Your task to perform on an android device: turn on the 24-hour format for clock Image 0: 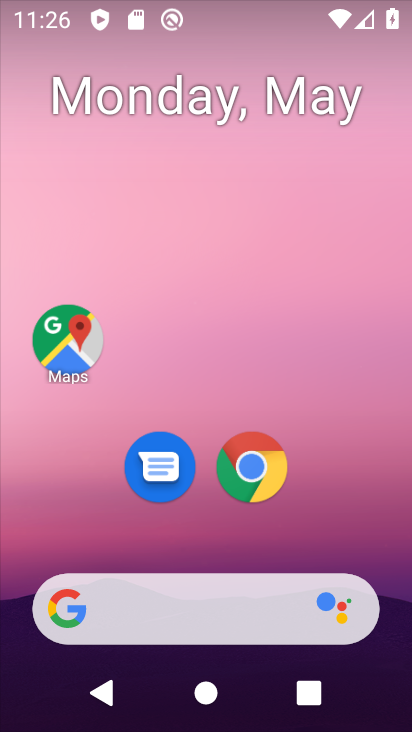
Step 0: drag from (378, 482) to (247, 20)
Your task to perform on an android device: turn on the 24-hour format for clock Image 1: 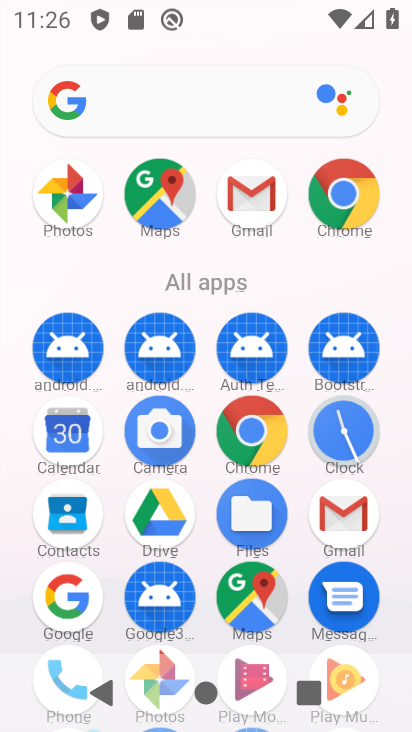
Step 1: click (345, 456)
Your task to perform on an android device: turn on the 24-hour format for clock Image 2: 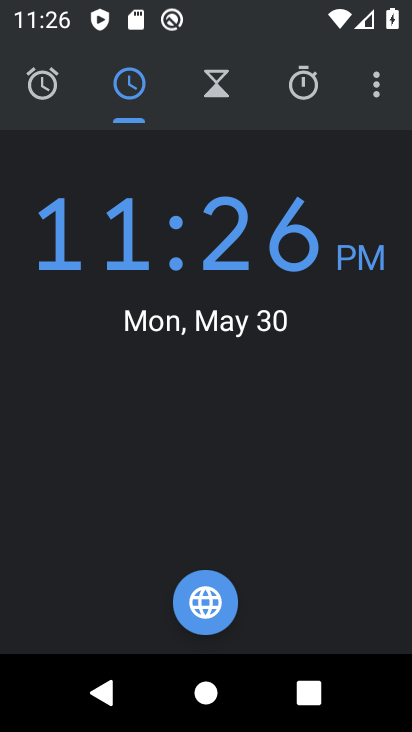
Step 2: click (372, 111)
Your task to perform on an android device: turn on the 24-hour format for clock Image 3: 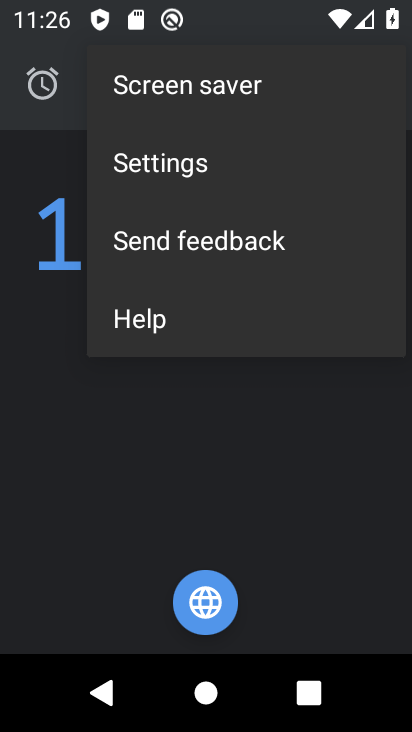
Step 3: click (302, 178)
Your task to perform on an android device: turn on the 24-hour format for clock Image 4: 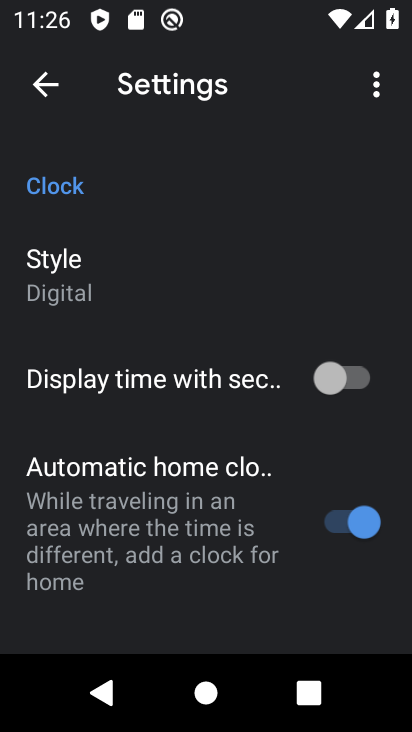
Step 4: drag from (222, 509) to (155, 122)
Your task to perform on an android device: turn on the 24-hour format for clock Image 5: 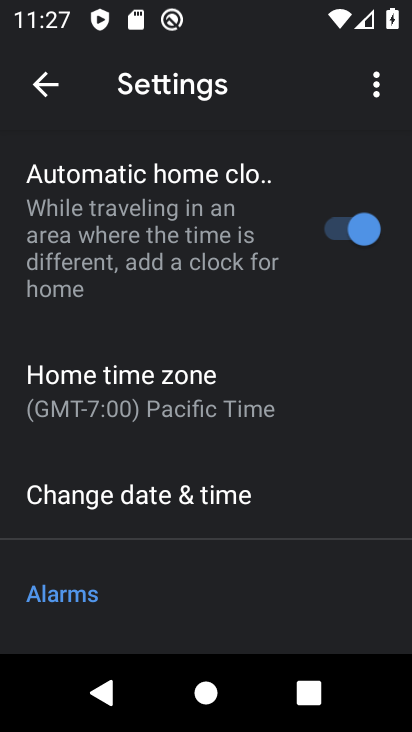
Step 5: click (195, 522)
Your task to perform on an android device: turn on the 24-hour format for clock Image 6: 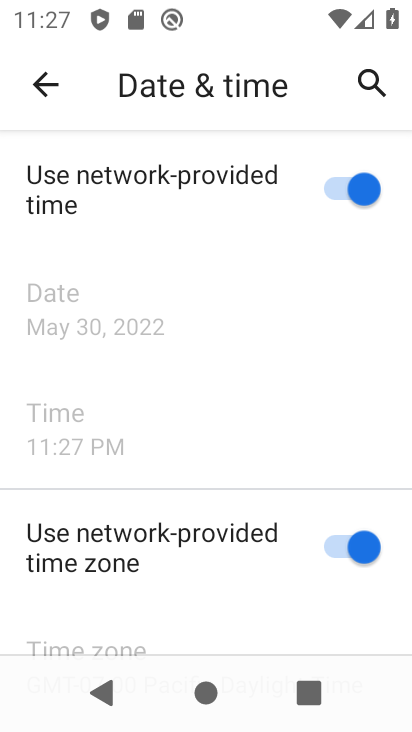
Step 6: drag from (234, 543) to (180, 3)
Your task to perform on an android device: turn on the 24-hour format for clock Image 7: 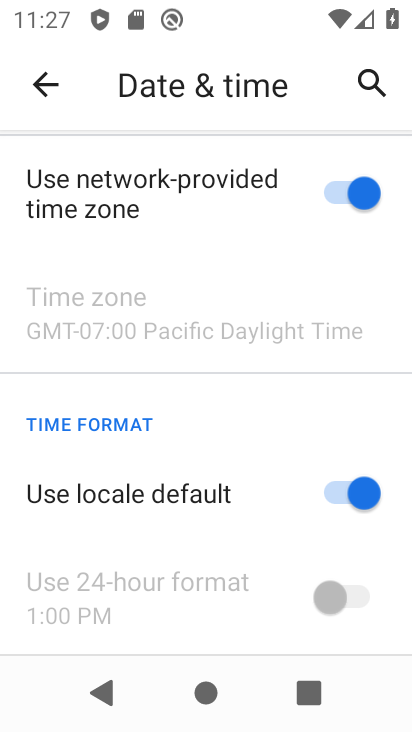
Step 7: click (340, 500)
Your task to perform on an android device: turn on the 24-hour format for clock Image 8: 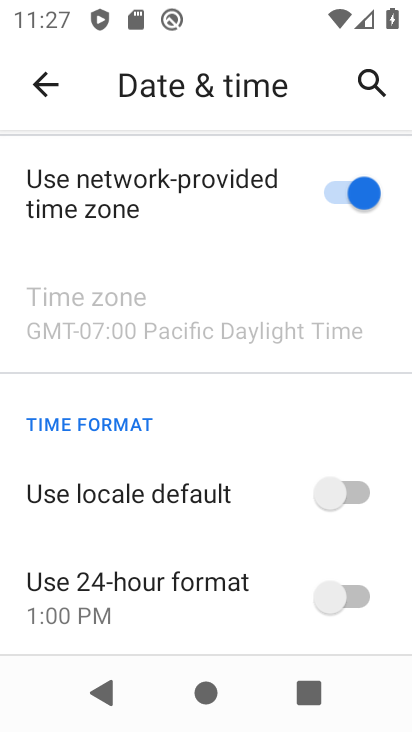
Step 8: click (366, 598)
Your task to perform on an android device: turn on the 24-hour format for clock Image 9: 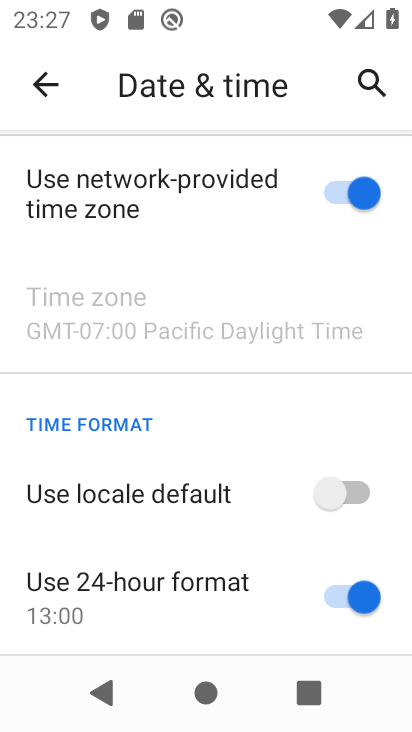
Step 9: task complete